Your task to perform on an android device: turn off location history Image 0: 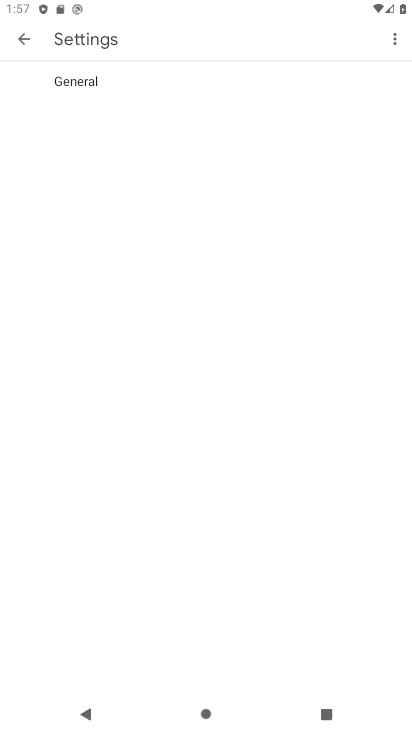
Step 0: press home button
Your task to perform on an android device: turn off location history Image 1: 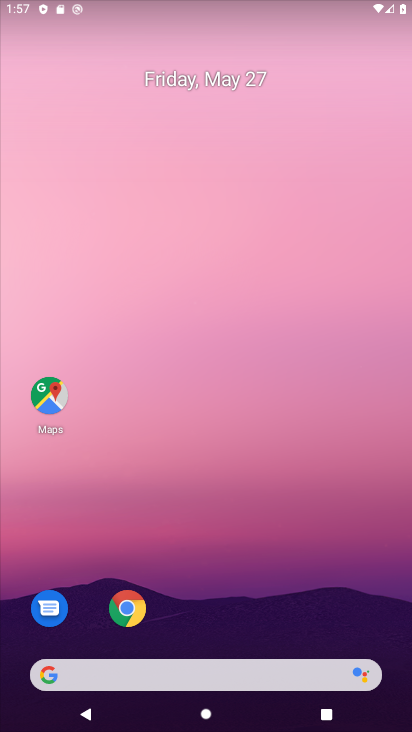
Step 1: drag from (306, 624) to (304, 202)
Your task to perform on an android device: turn off location history Image 2: 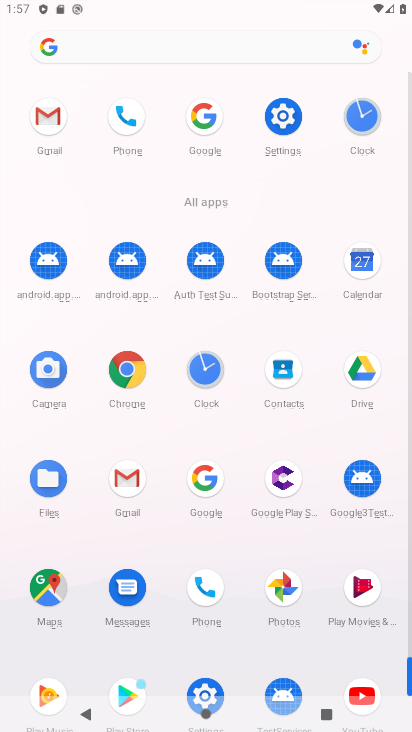
Step 2: click (295, 116)
Your task to perform on an android device: turn off location history Image 3: 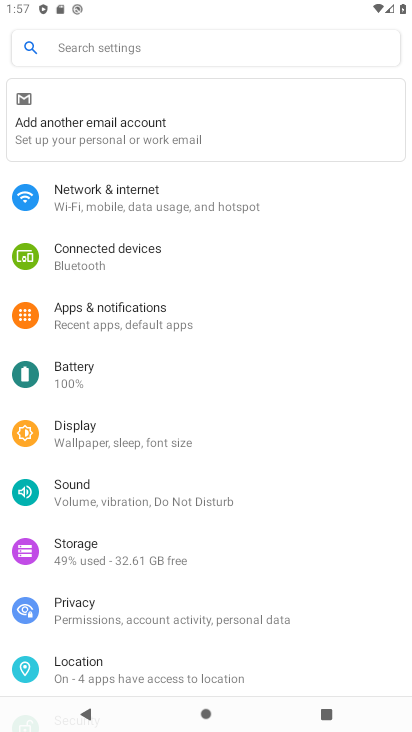
Step 3: click (68, 661)
Your task to perform on an android device: turn off location history Image 4: 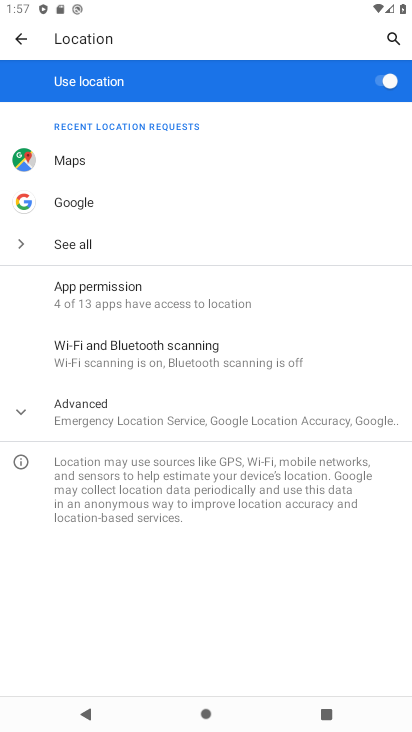
Step 4: click (15, 406)
Your task to perform on an android device: turn off location history Image 5: 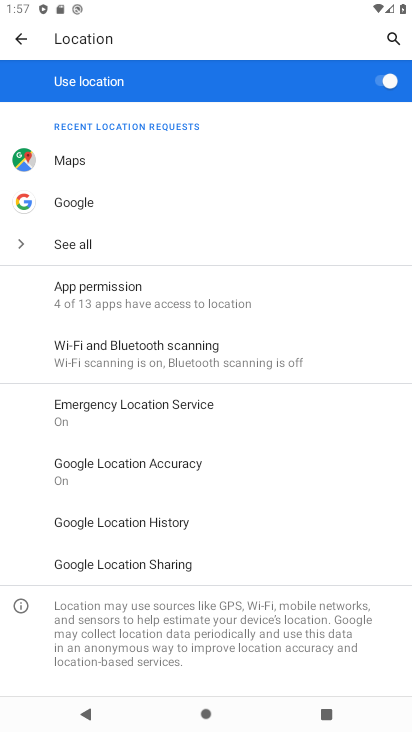
Step 5: click (177, 522)
Your task to perform on an android device: turn off location history Image 6: 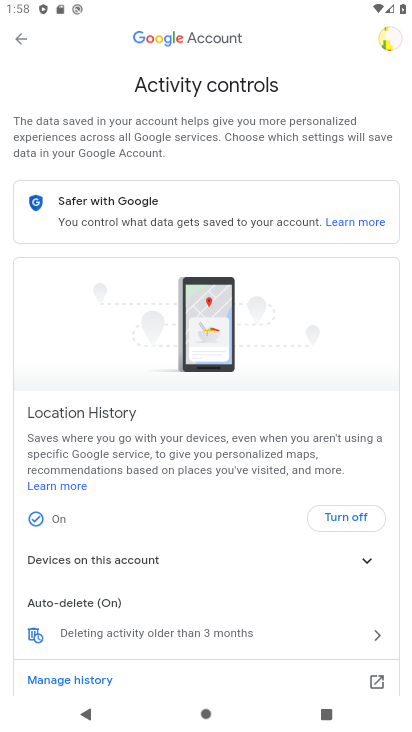
Step 6: click (347, 520)
Your task to perform on an android device: turn off location history Image 7: 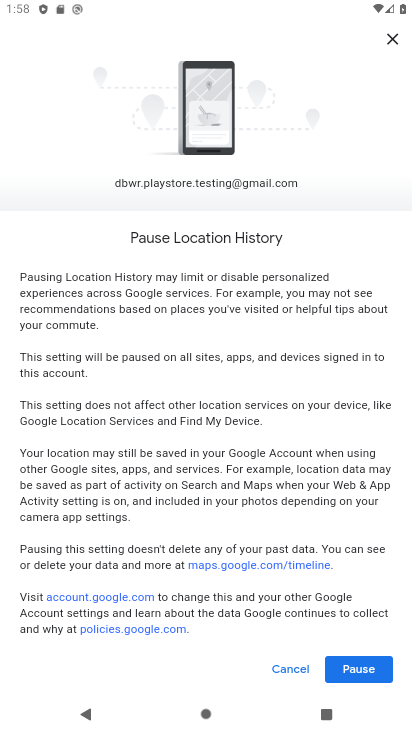
Step 7: task complete